Your task to perform on an android device: toggle notifications settings in the gmail app Image 0: 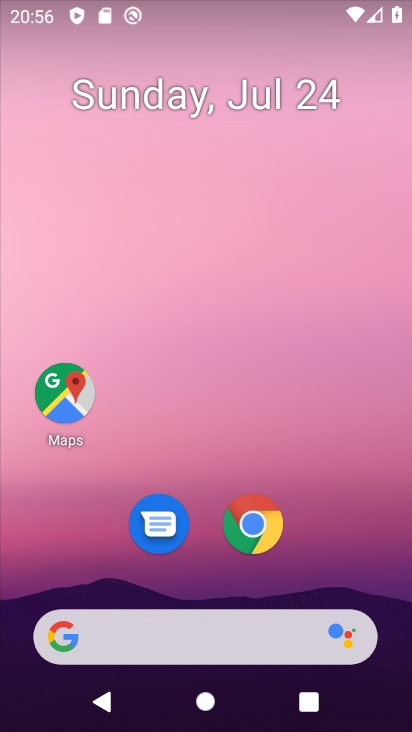
Step 0: press home button
Your task to perform on an android device: toggle notifications settings in the gmail app Image 1: 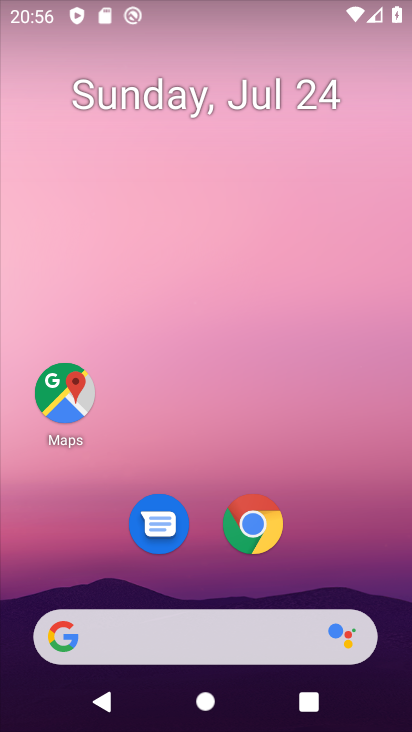
Step 1: drag from (194, 623) to (267, 170)
Your task to perform on an android device: toggle notifications settings in the gmail app Image 2: 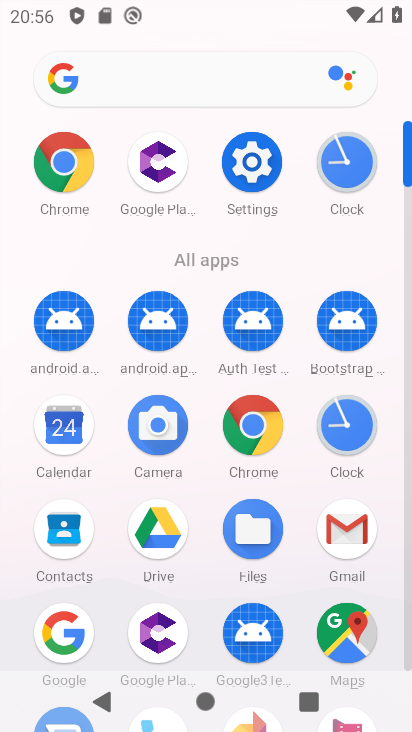
Step 2: click (361, 527)
Your task to perform on an android device: toggle notifications settings in the gmail app Image 3: 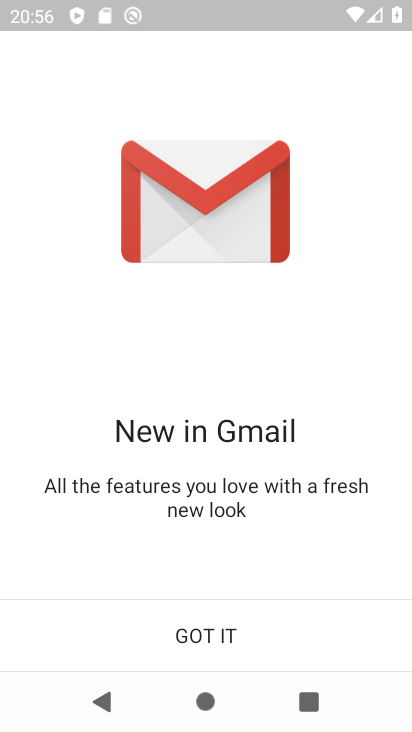
Step 3: click (194, 624)
Your task to perform on an android device: toggle notifications settings in the gmail app Image 4: 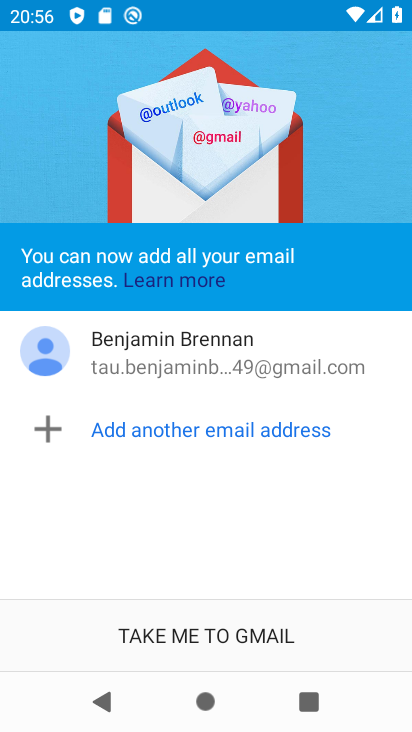
Step 4: click (186, 638)
Your task to perform on an android device: toggle notifications settings in the gmail app Image 5: 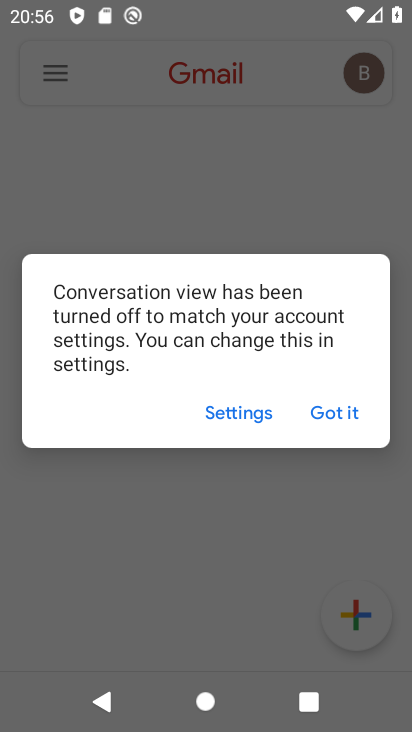
Step 5: click (324, 415)
Your task to perform on an android device: toggle notifications settings in the gmail app Image 6: 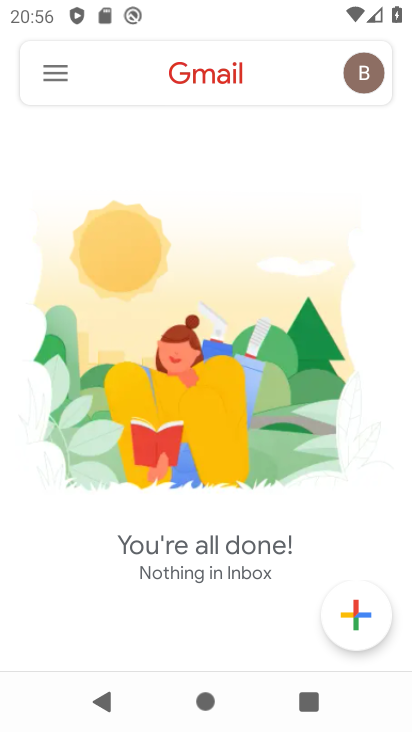
Step 6: click (56, 71)
Your task to perform on an android device: toggle notifications settings in the gmail app Image 7: 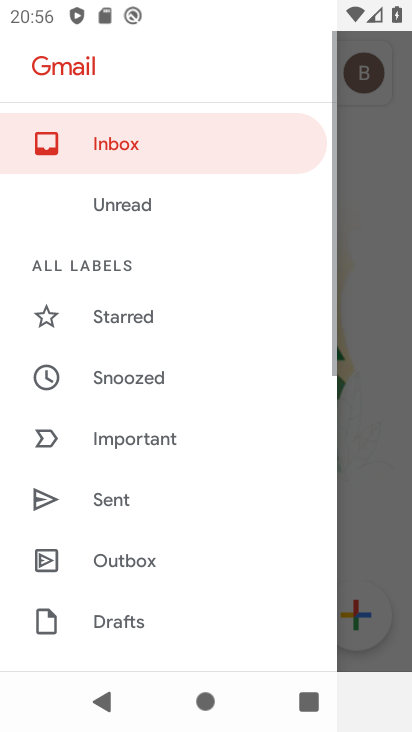
Step 7: drag from (247, 553) to (319, 59)
Your task to perform on an android device: toggle notifications settings in the gmail app Image 8: 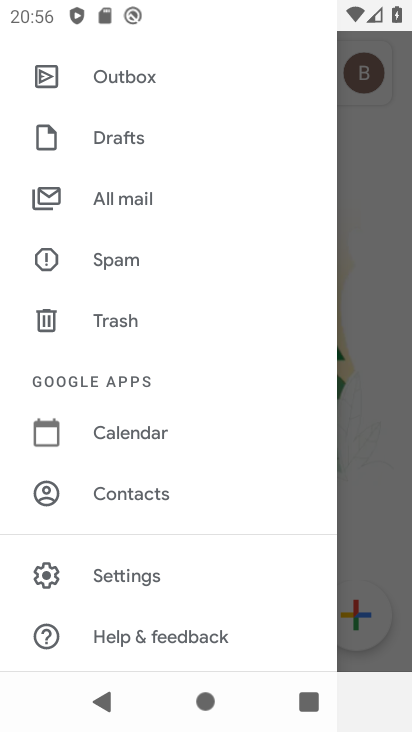
Step 8: click (133, 567)
Your task to perform on an android device: toggle notifications settings in the gmail app Image 9: 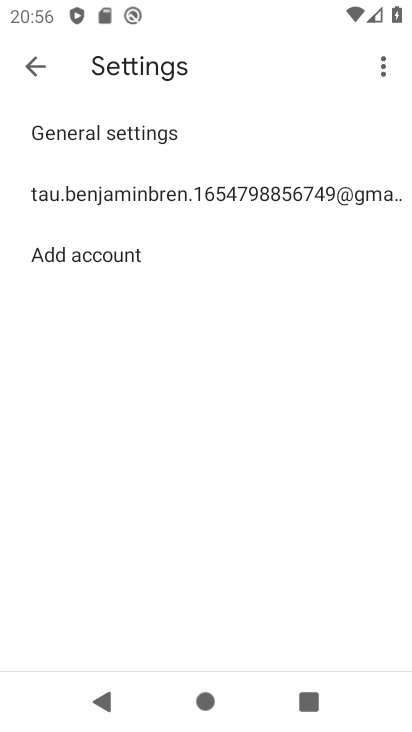
Step 9: click (271, 189)
Your task to perform on an android device: toggle notifications settings in the gmail app Image 10: 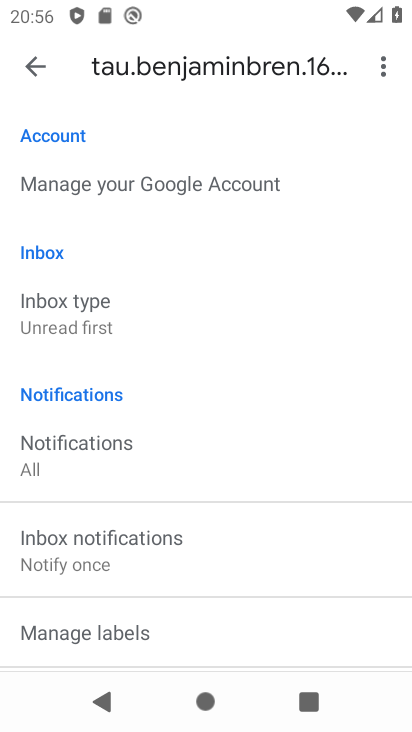
Step 10: click (90, 452)
Your task to perform on an android device: toggle notifications settings in the gmail app Image 11: 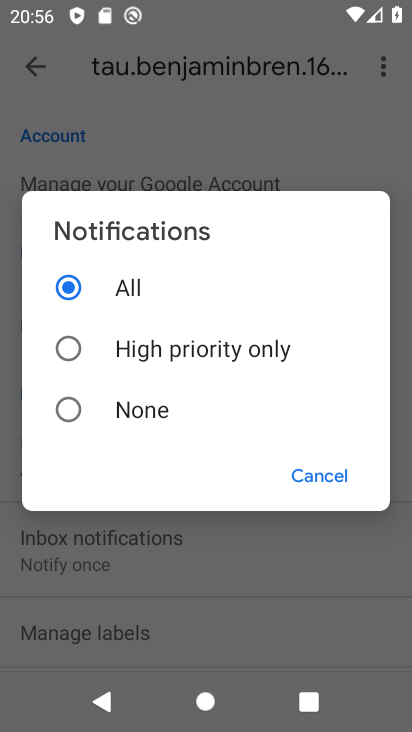
Step 11: click (74, 410)
Your task to perform on an android device: toggle notifications settings in the gmail app Image 12: 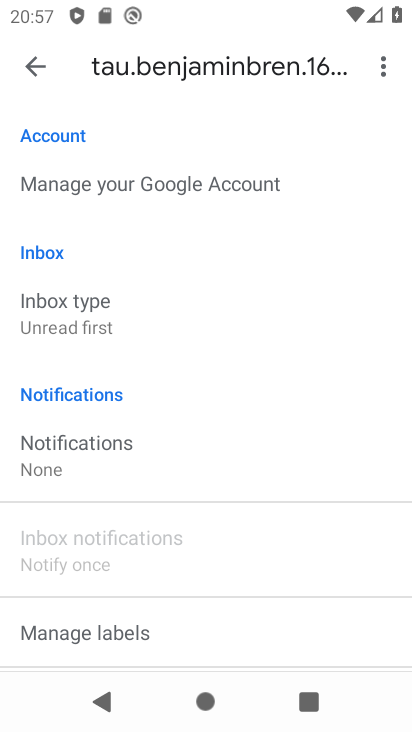
Step 12: task complete